Your task to perform on an android device: turn off airplane mode Image 0: 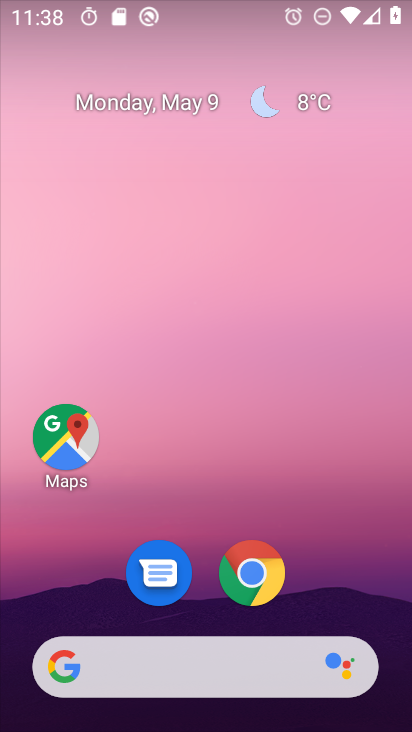
Step 0: drag from (269, 2) to (308, 541)
Your task to perform on an android device: turn off airplane mode Image 1: 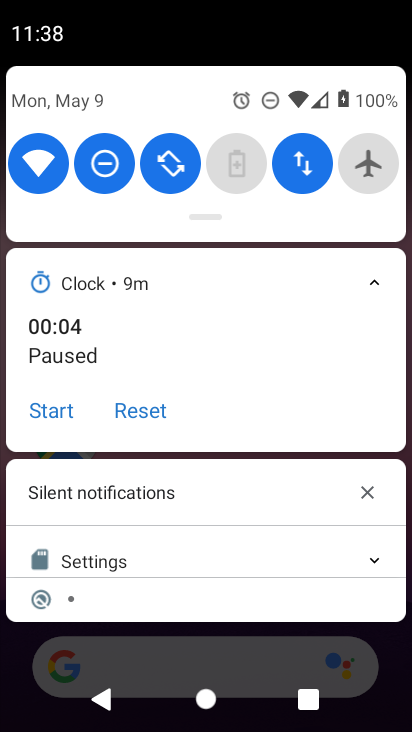
Step 1: task complete